Your task to perform on an android device: Search for razer blackwidow on ebay.com, select the first entry, add it to the cart, then select checkout. Image 0: 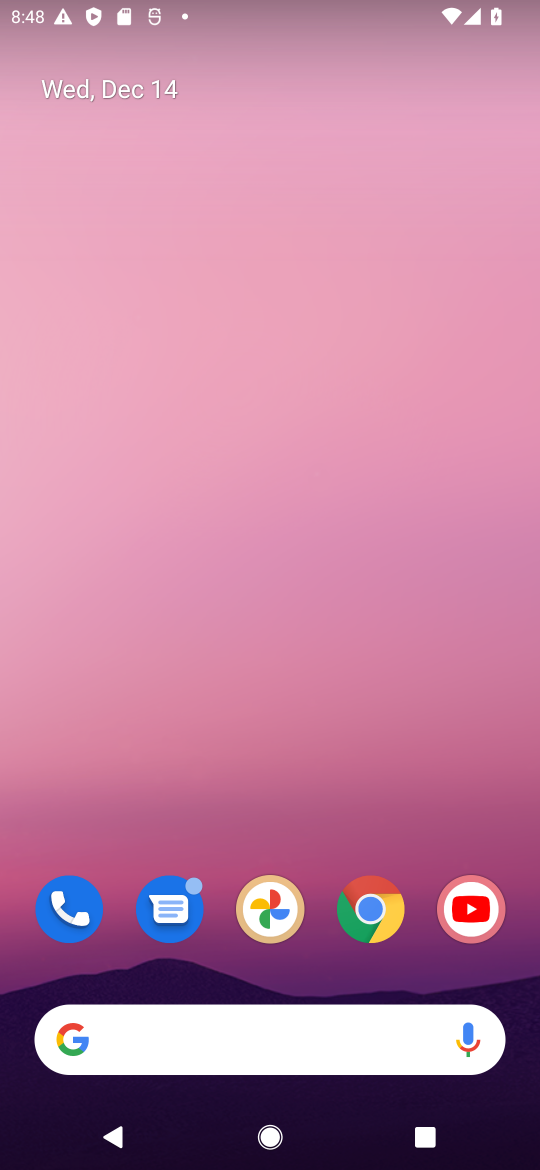
Step 0: click (343, 900)
Your task to perform on an android device: Search for razer blackwidow on ebay.com, select the first entry, add it to the cart, then select checkout. Image 1: 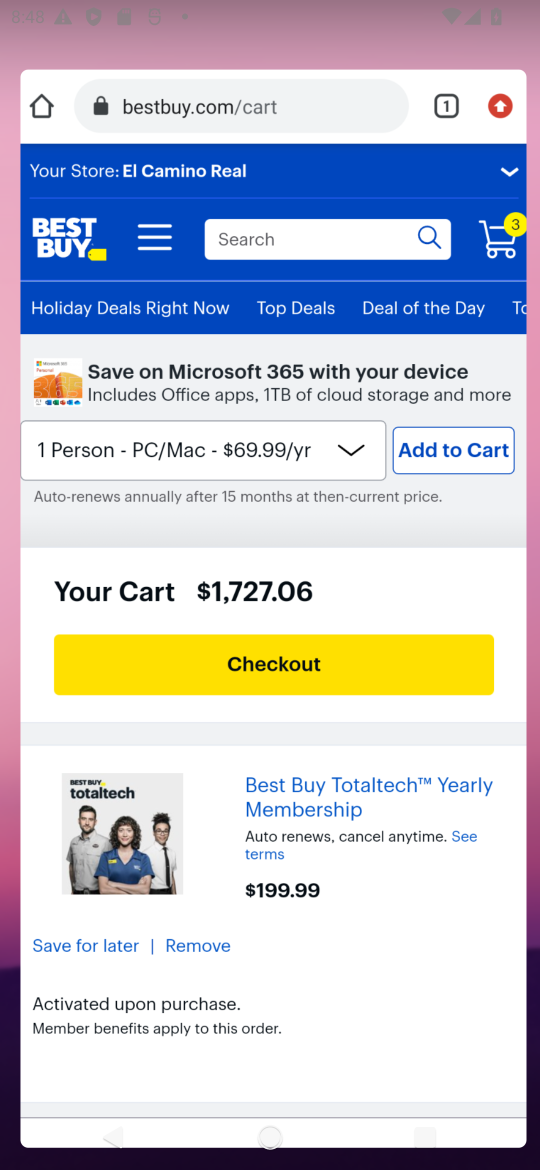
Step 1: click (355, 908)
Your task to perform on an android device: Search for razer blackwidow on ebay.com, select the first entry, add it to the cart, then select checkout. Image 2: 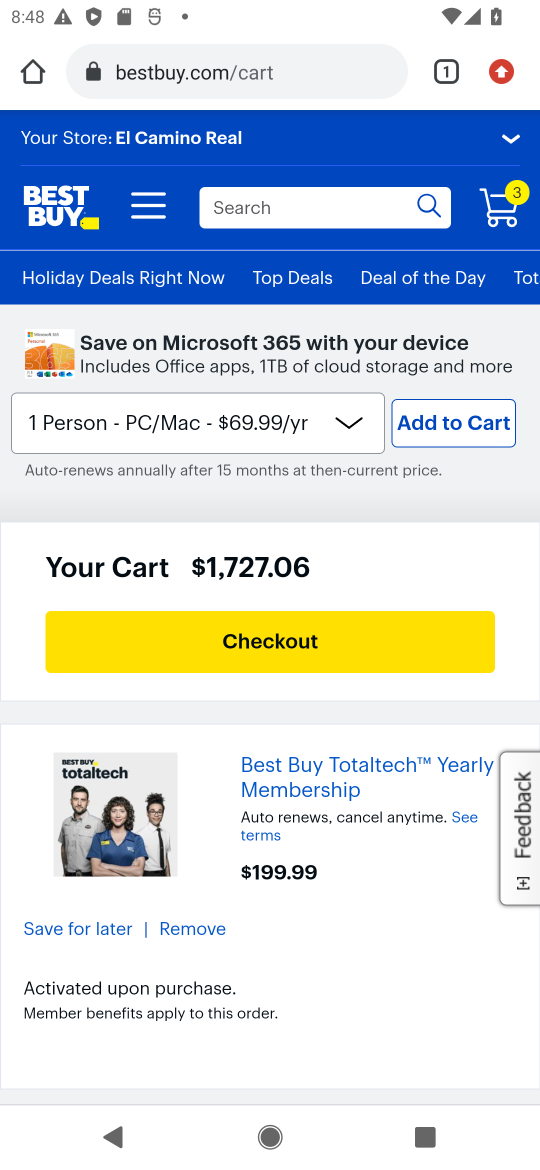
Step 2: click (195, 74)
Your task to perform on an android device: Search for razer blackwidow on ebay.com, select the first entry, add it to the cart, then select checkout. Image 3: 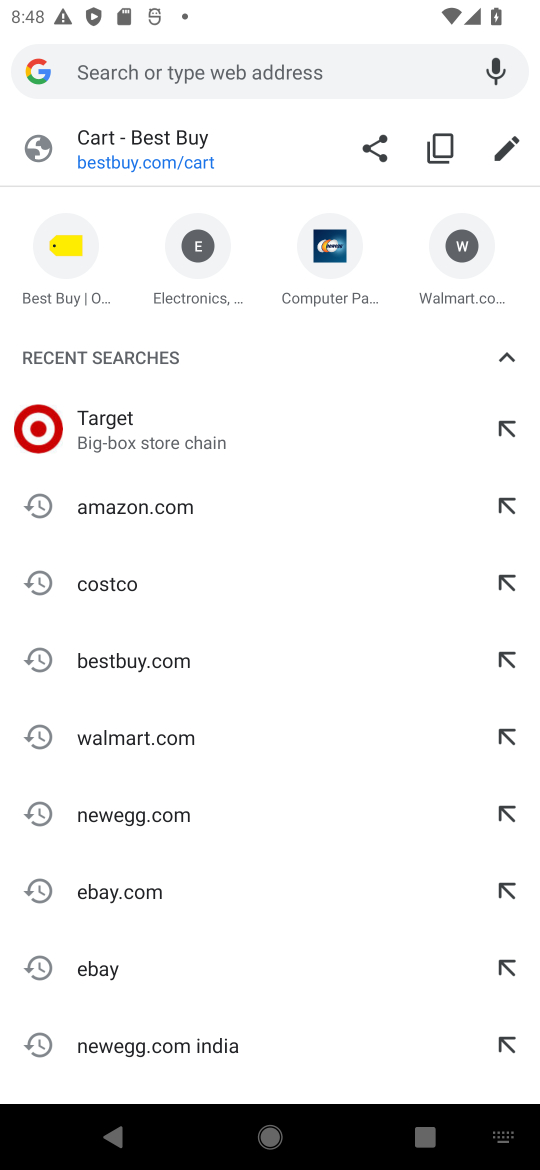
Step 3: type "ebay.com"
Your task to perform on an android device: Search for razer blackwidow on ebay.com, select the first entry, add it to the cart, then select checkout. Image 4: 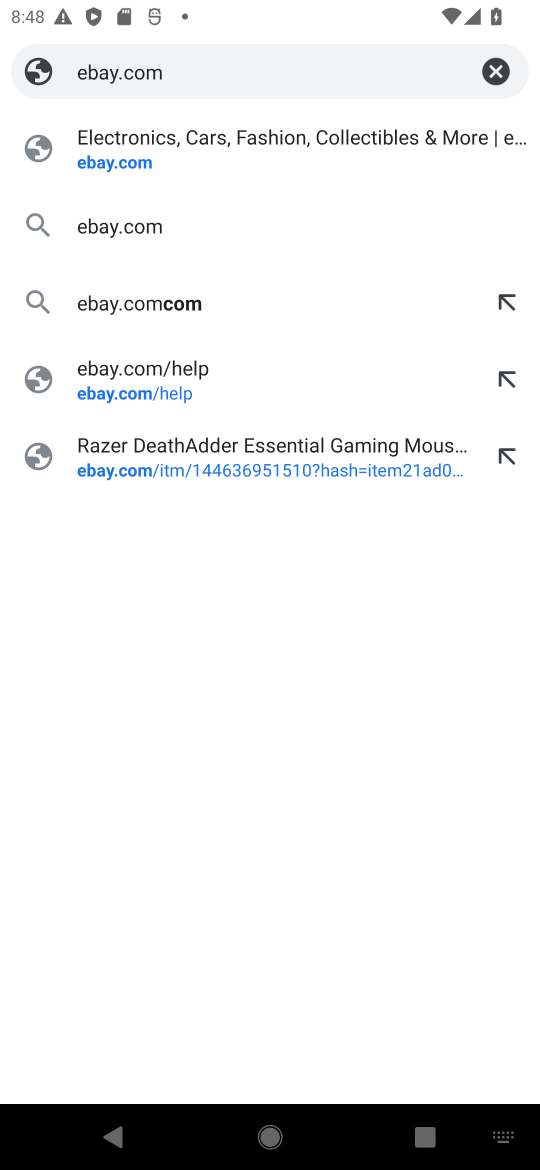
Step 4: click (362, 172)
Your task to perform on an android device: Search for razer blackwidow on ebay.com, select the first entry, add it to the cart, then select checkout. Image 5: 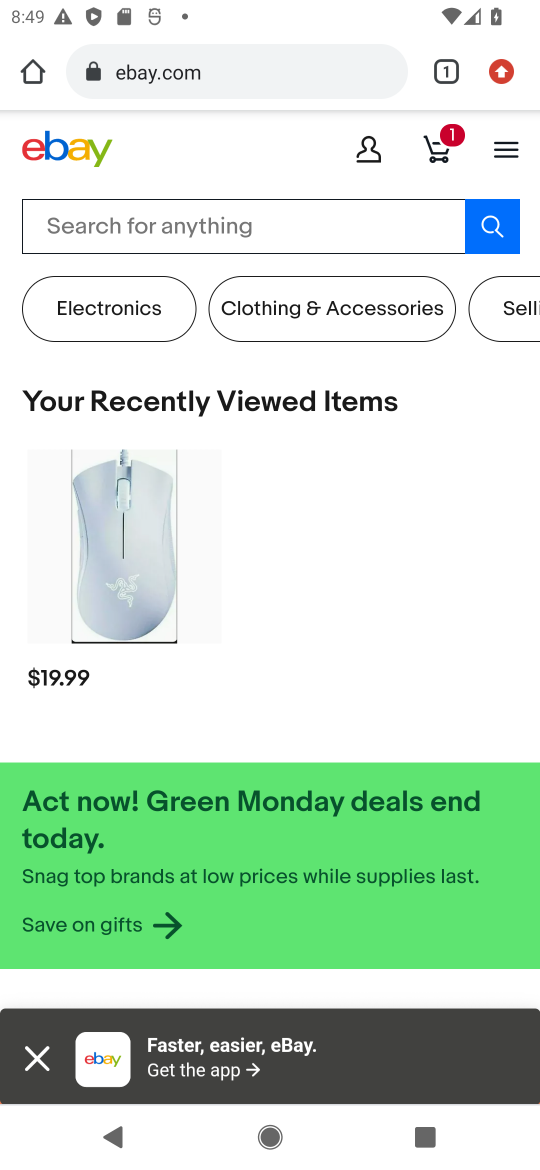
Step 5: click (106, 207)
Your task to perform on an android device: Search for razer blackwidow on ebay.com, select the first entry, add it to the cart, then select checkout. Image 6: 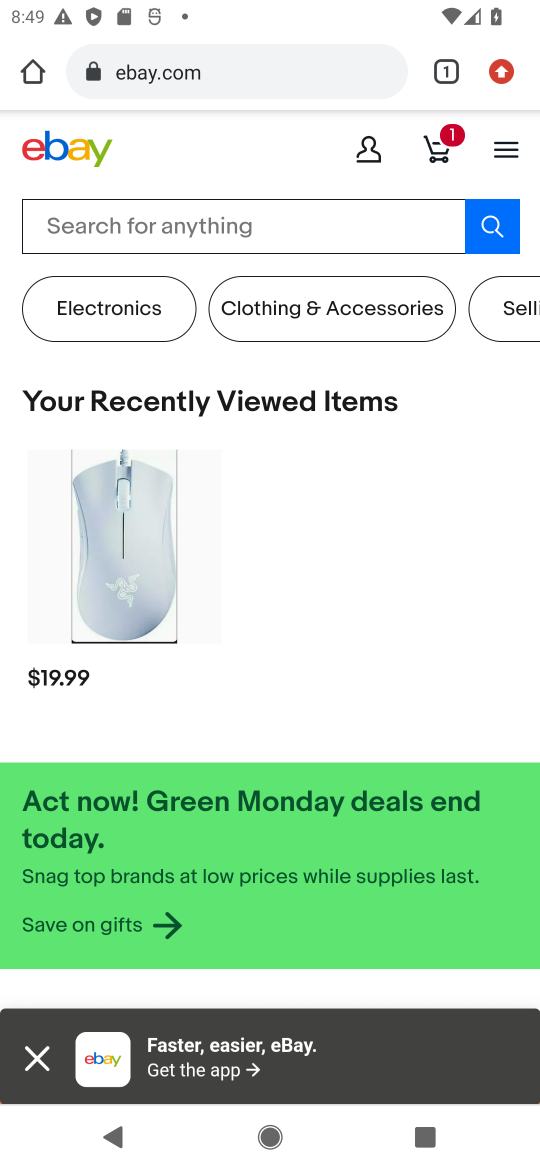
Step 6: click (106, 207)
Your task to perform on an android device: Search for razer blackwidow on ebay.com, select the first entry, add it to the cart, then select checkout. Image 7: 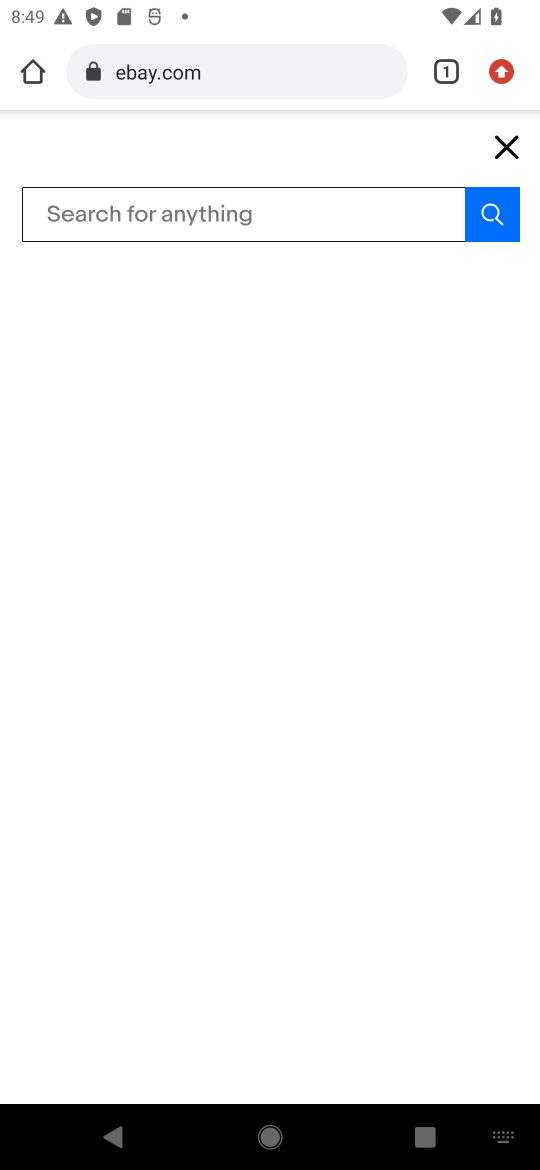
Step 7: press enter
Your task to perform on an android device: Search for razer blackwidow on ebay.com, select the first entry, add it to the cart, then select checkout. Image 8: 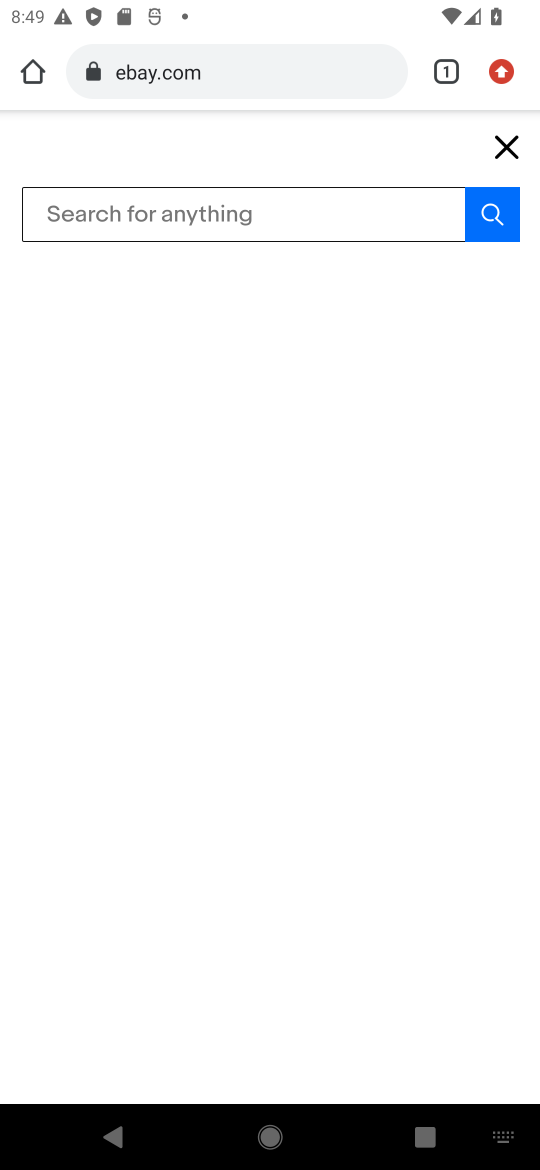
Step 8: type "razer blackwidow"
Your task to perform on an android device: Search for razer blackwidow on ebay.com, select the first entry, add it to the cart, then select checkout. Image 9: 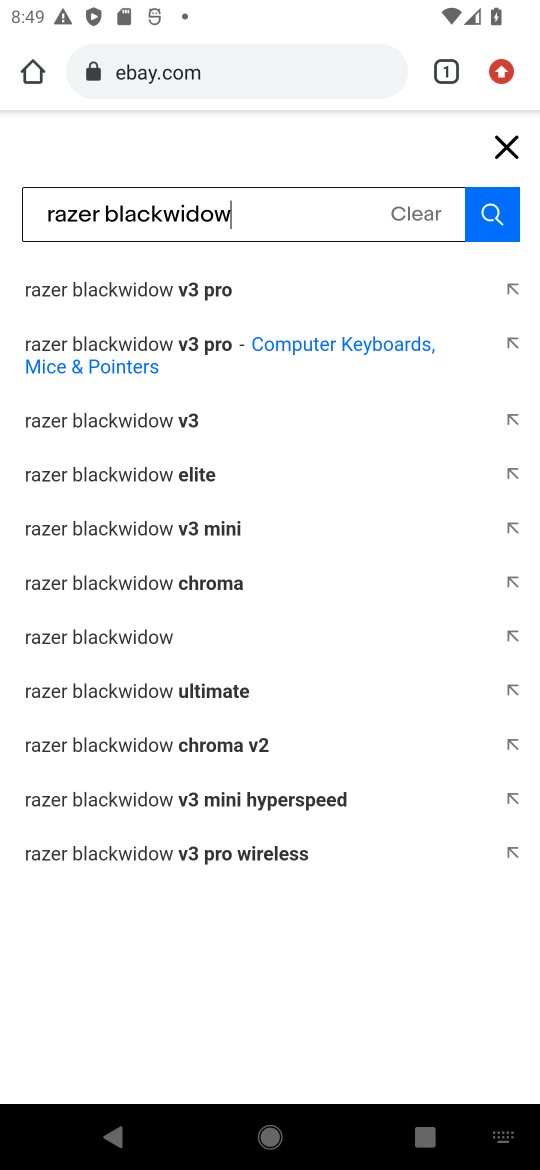
Step 9: click (513, 228)
Your task to perform on an android device: Search for razer blackwidow on ebay.com, select the first entry, add it to the cart, then select checkout. Image 10: 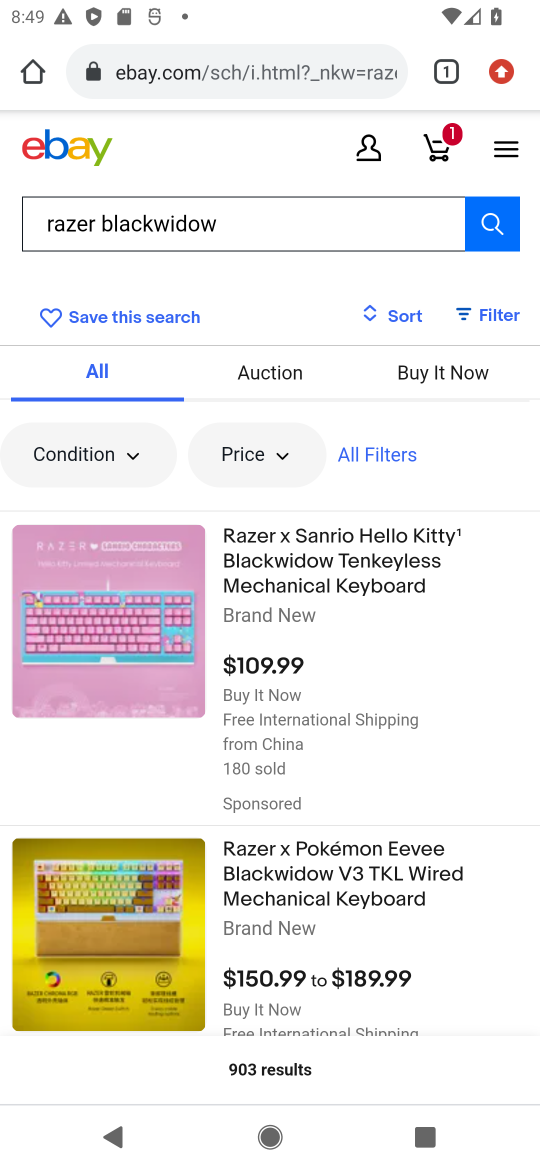
Step 10: click (321, 581)
Your task to perform on an android device: Search for razer blackwidow on ebay.com, select the first entry, add it to the cart, then select checkout. Image 11: 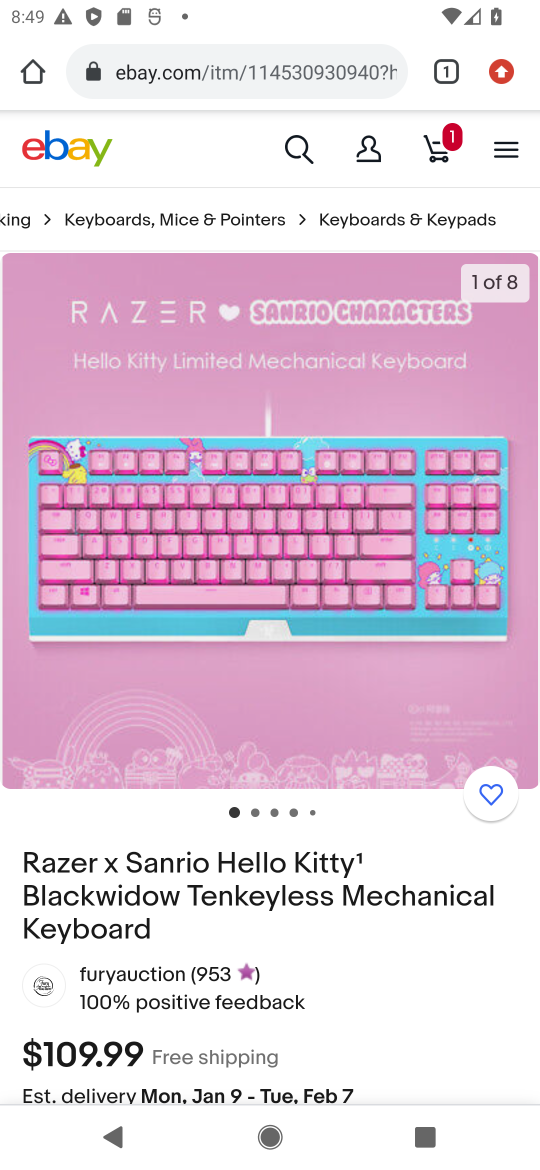
Step 11: drag from (323, 865) to (285, 50)
Your task to perform on an android device: Search for razer blackwidow on ebay.com, select the first entry, add it to the cart, then select checkout. Image 12: 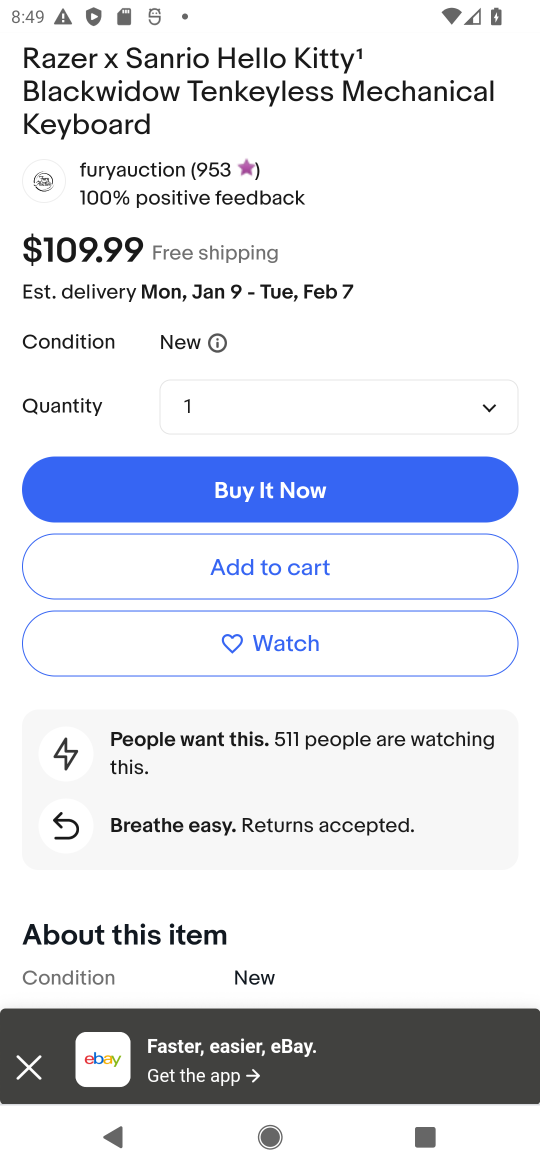
Step 12: click (280, 573)
Your task to perform on an android device: Search for razer blackwidow on ebay.com, select the first entry, add it to the cart, then select checkout. Image 13: 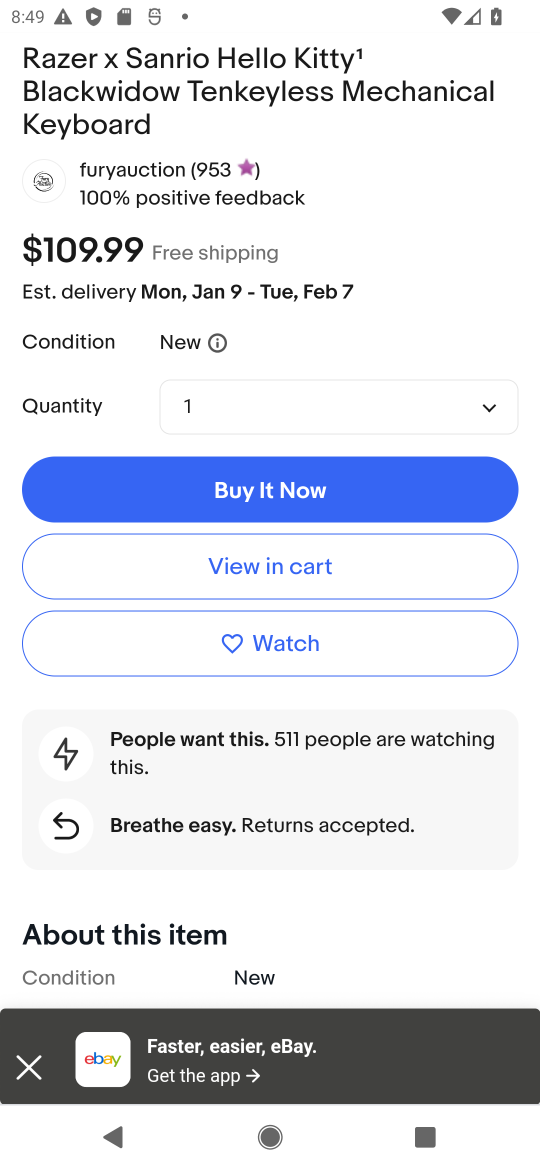
Step 13: click (280, 573)
Your task to perform on an android device: Search for razer blackwidow on ebay.com, select the first entry, add it to the cart, then select checkout. Image 14: 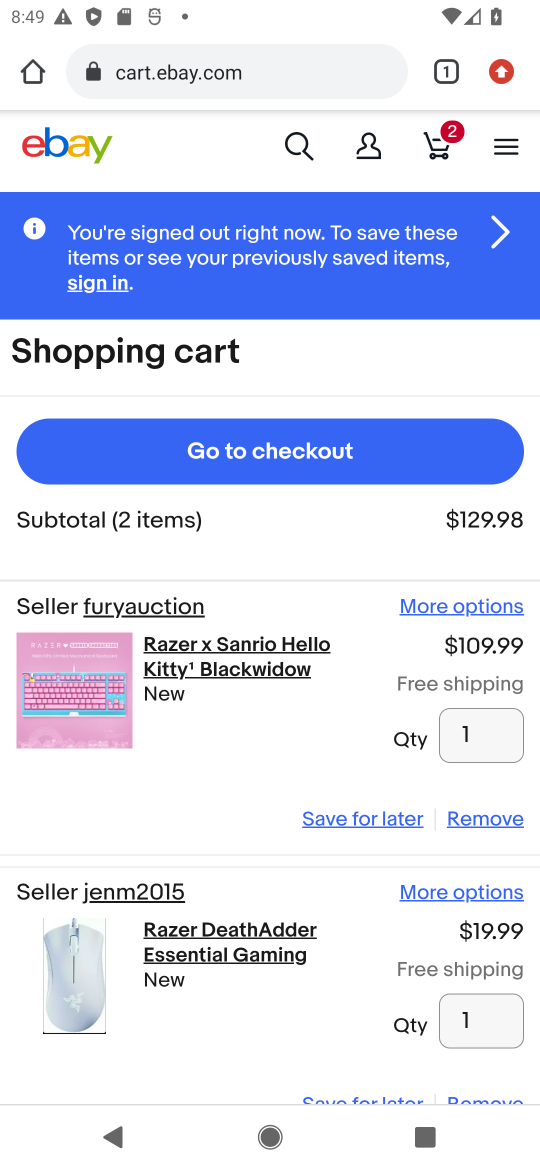
Step 14: click (239, 464)
Your task to perform on an android device: Search for razer blackwidow on ebay.com, select the first entry, add it to the cart, then select checkout. Image 15: 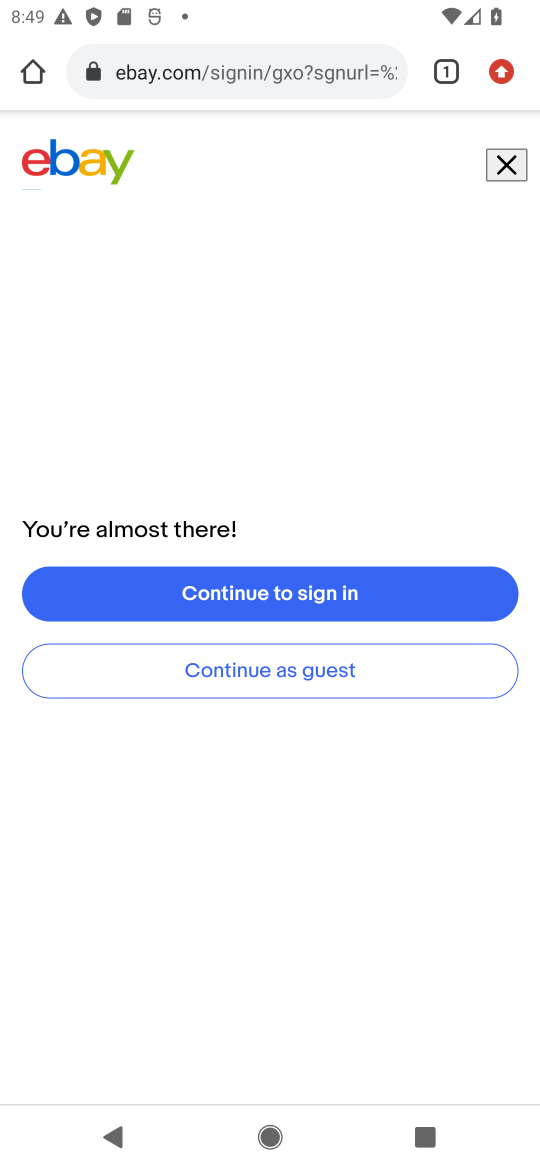
Step 15: click (253, 588)
Your task to perform on an android device: Search for razer blackwidow on ebay.com, select the first entry, add it to the cart, then select checkout. Image 16: 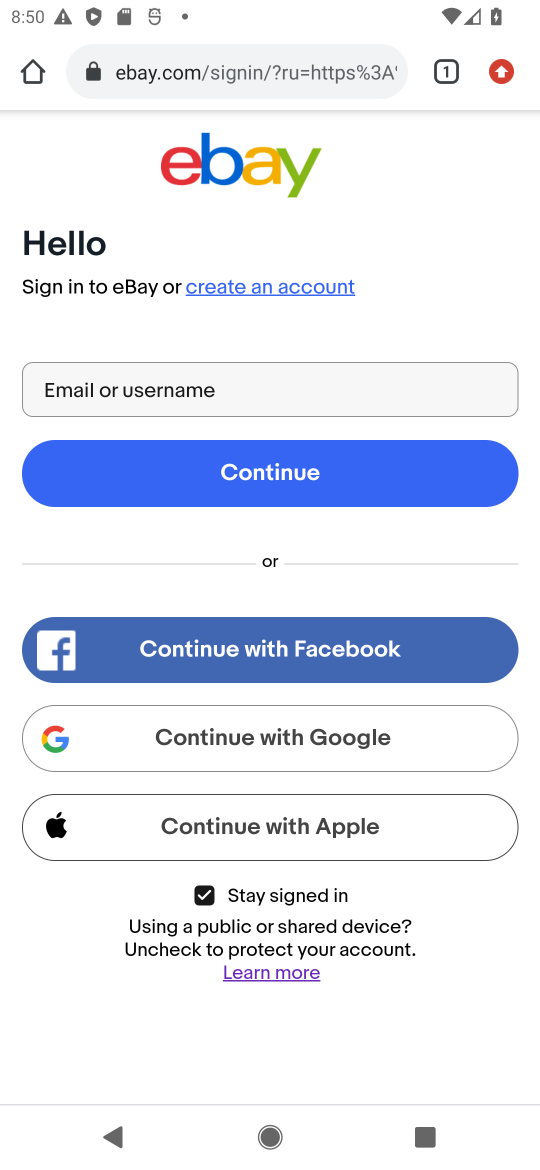
Step 16: task complete